Your task to perform on an android device: Do I have any events today? Image 0: 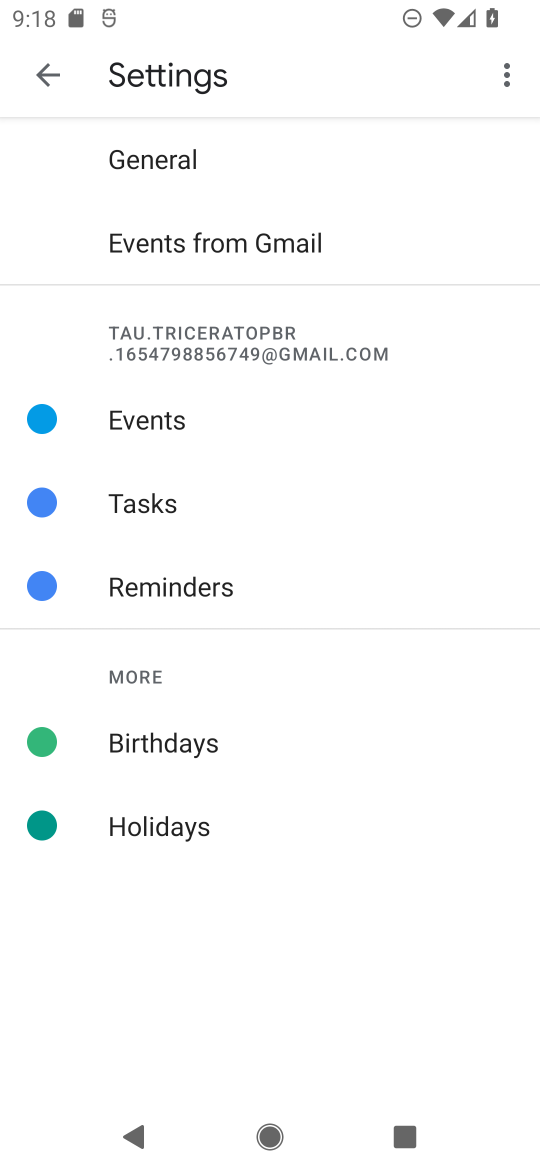
Step 0: press home button
Your task to perform on an android device: Do I have any events today? Image 1: 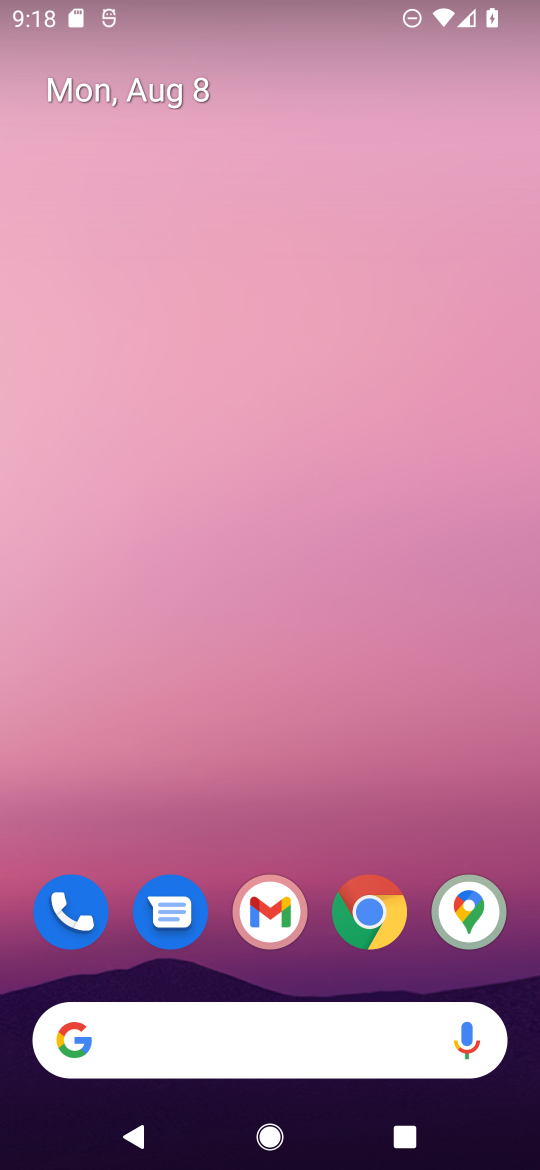
Step 1: drag from (467, 1053) to (302, 45)
Your task to perform on an android device: Do I have any events today? Image 2: 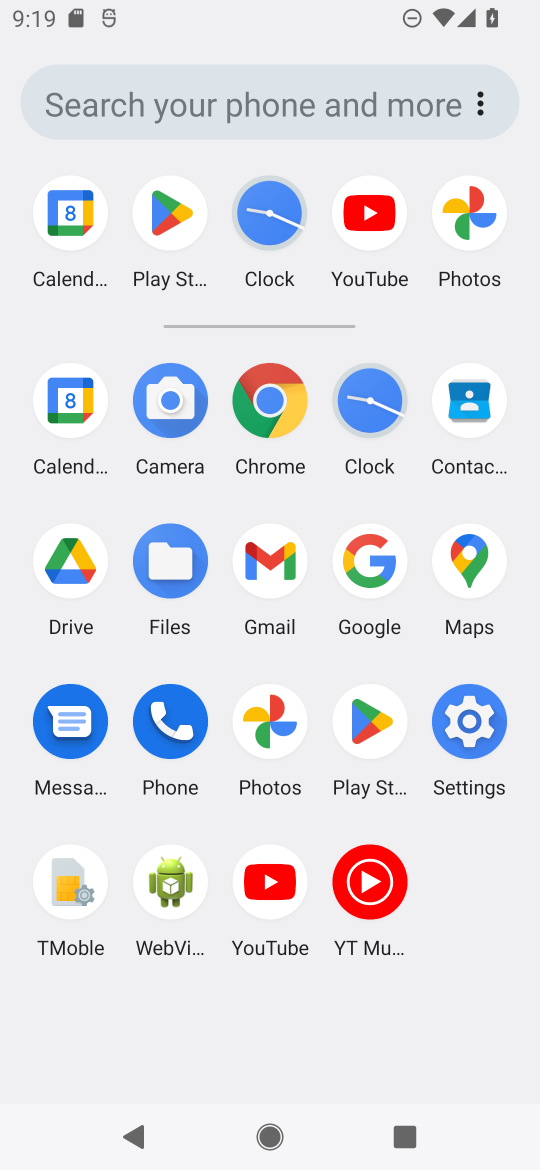
Step 2: click (44, 404)
Your task to perform on an android device: Do I have any events today? Image 3: 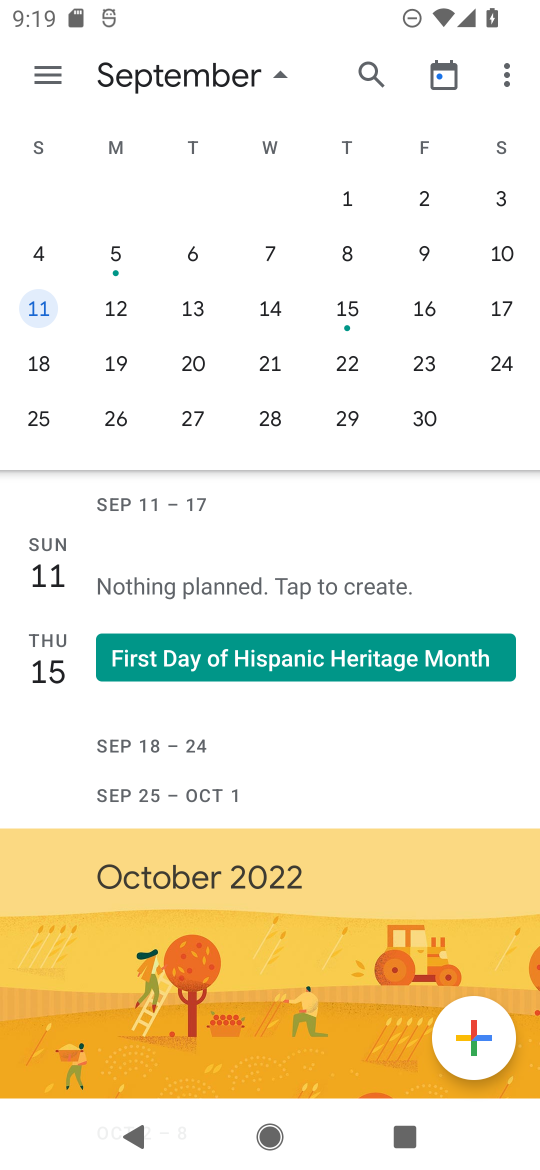
Step 3: task complete